Your task to perform on an android device: Is it going to rain tomorrow? Image 0: 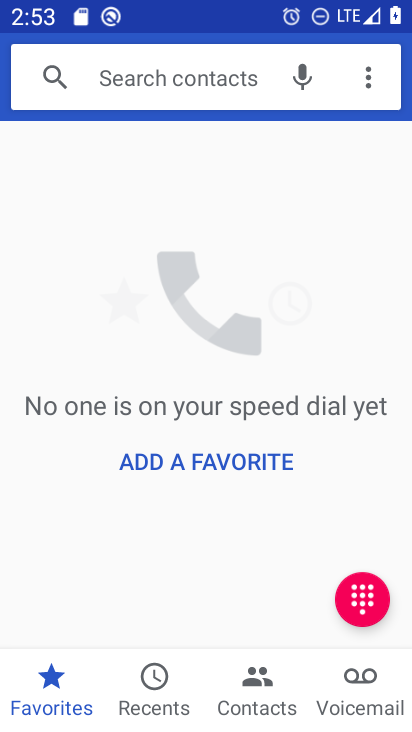
Step 0: press home button
Your task to perform on an android device: Is it going to rain tomorrow? Image 1: 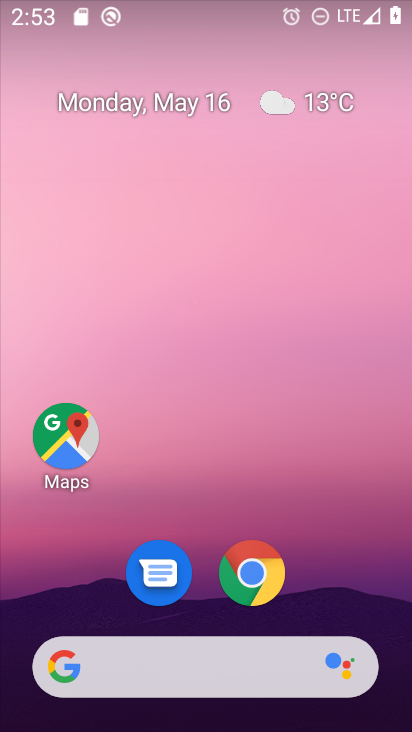
Step 1: click (280, 97)
Your task to perform on an android device: Is it going to rain tomorrow? Image 2: 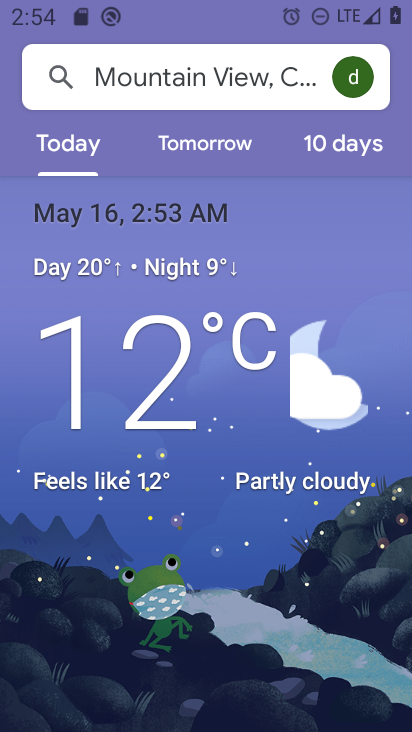
Step 2: click (157, 137)
Your task to perform on an android device: Is it going to rain tomorrow? Image 3: 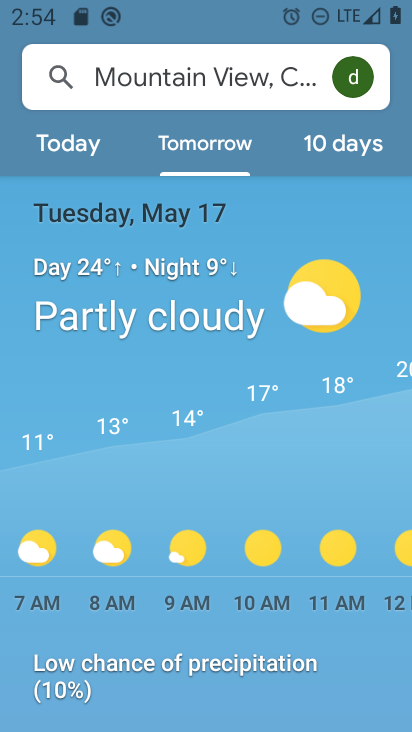
Step 3: task complete